Your task to perform on an android device: What's the weather today? Image 0: 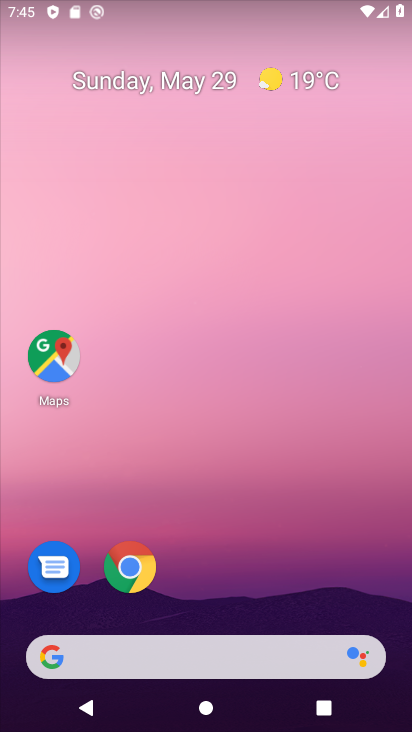
Step 0: click (296, 75)
Your task to perform on an android device: What's the weather today? Image 1: 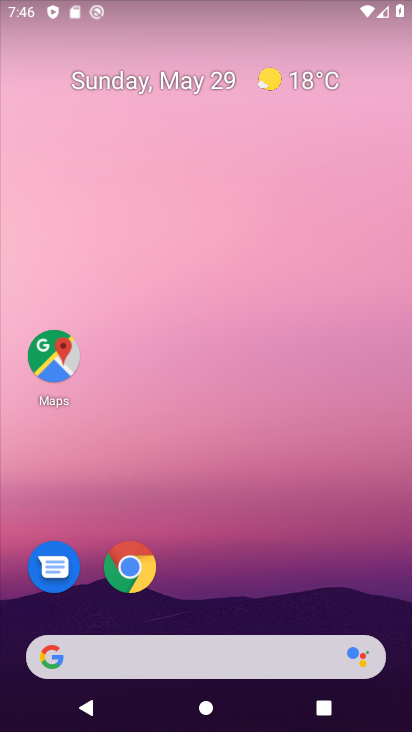
Step 1: drag from (1, 223) to (319, 246)
Your task to perform on an android device: What's the weather today? Image 2: 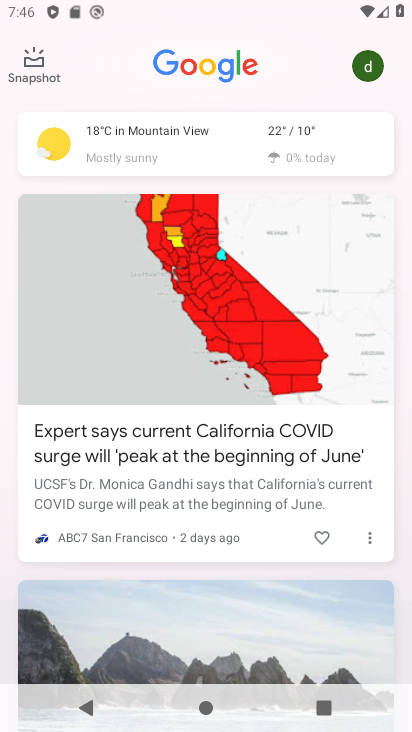
Step 2: click (291, 129)
Your task to perform on an android device: What's the weather today? Image 3: 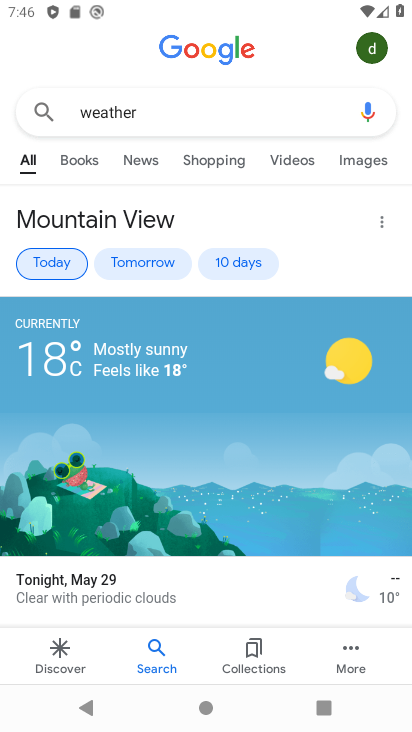
Step 3: click (61, 259)
Your task to perform on an android device: What's the weather today? Image 4: 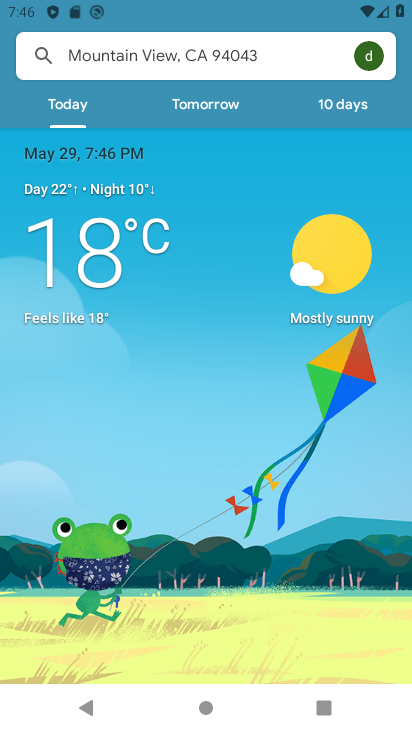
Step 4: task complete